Your task to perform on an android device: change text size in settings app Image 0: 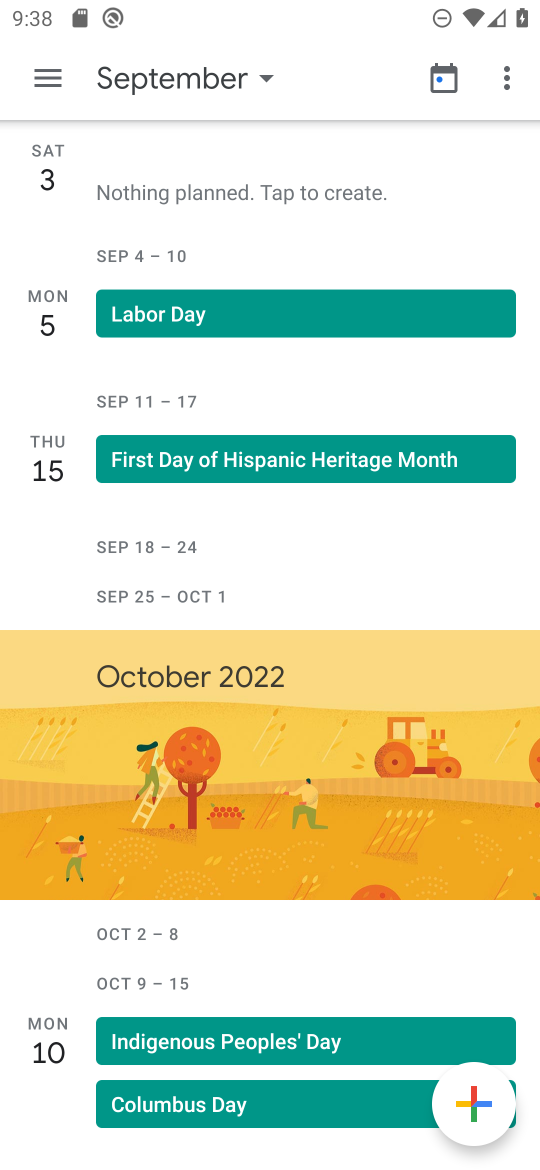
Step 0: press home button
Your task to perform on an android device: change text size in settings app Image 1: 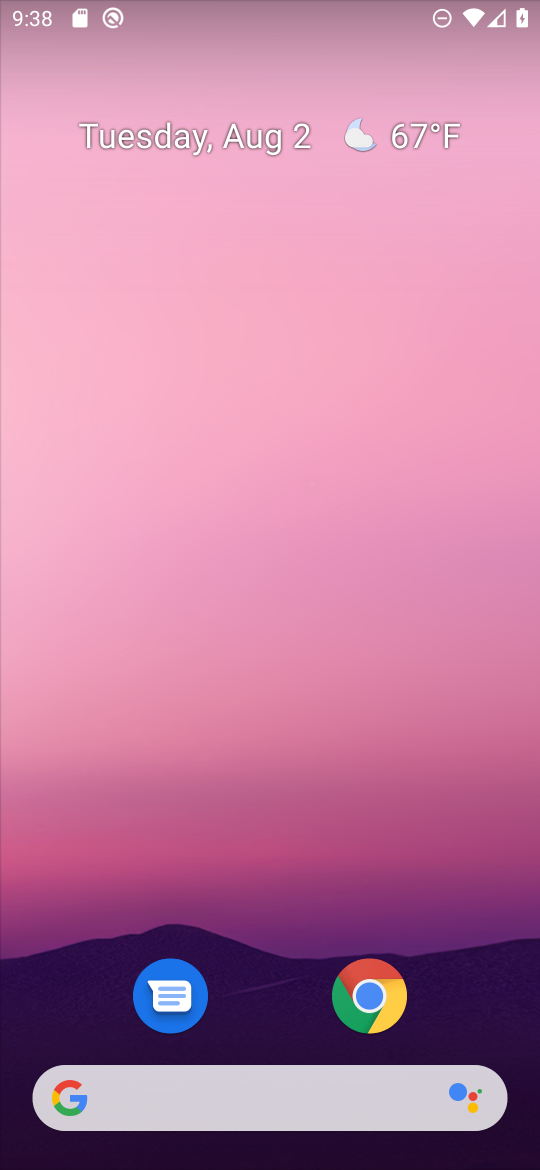
Step 1: drag from (257, 995) to (435, 19)
Your task to perform on an android device: change text size in settings app Image 2: 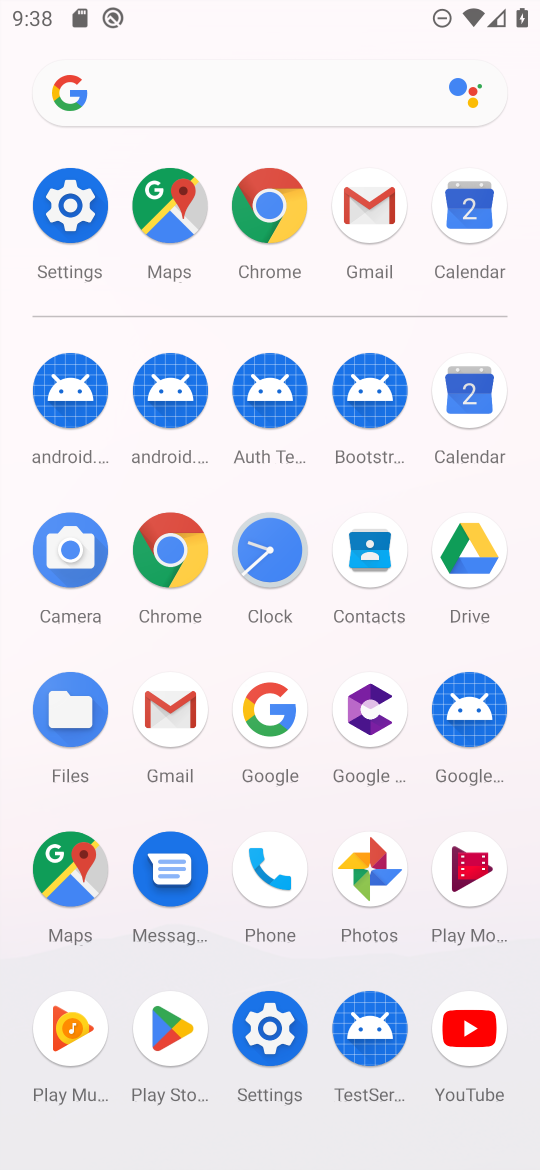
Step 2: click (283, 1034)
Your task to perform on an android device: change text size in settings app Image 3: 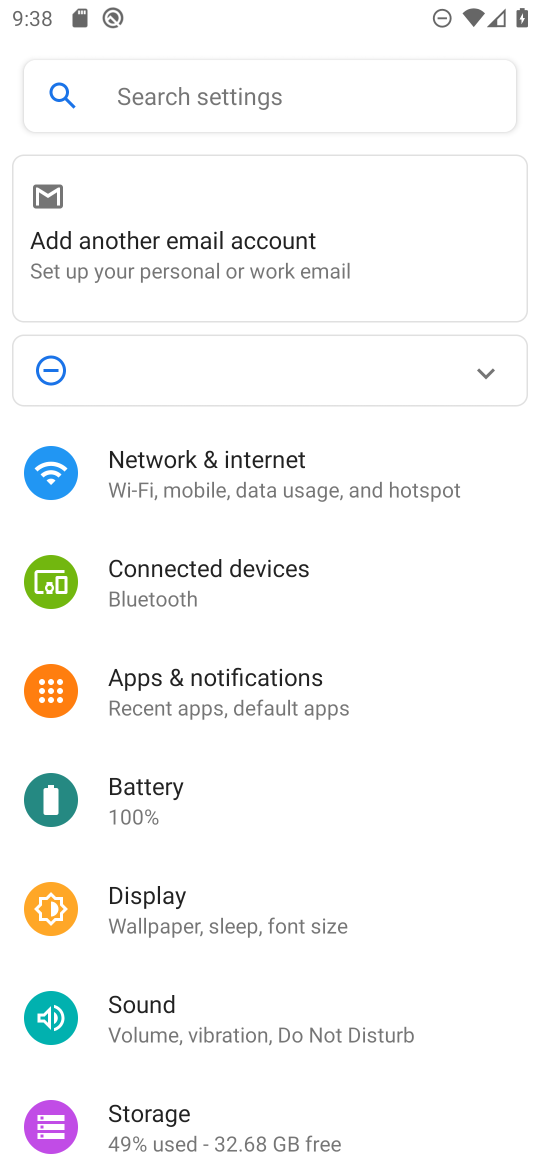
Step 3: drag from (266, 909) to (367, 331)
Your task to perform on an android device: change text size in settings app Image 4: 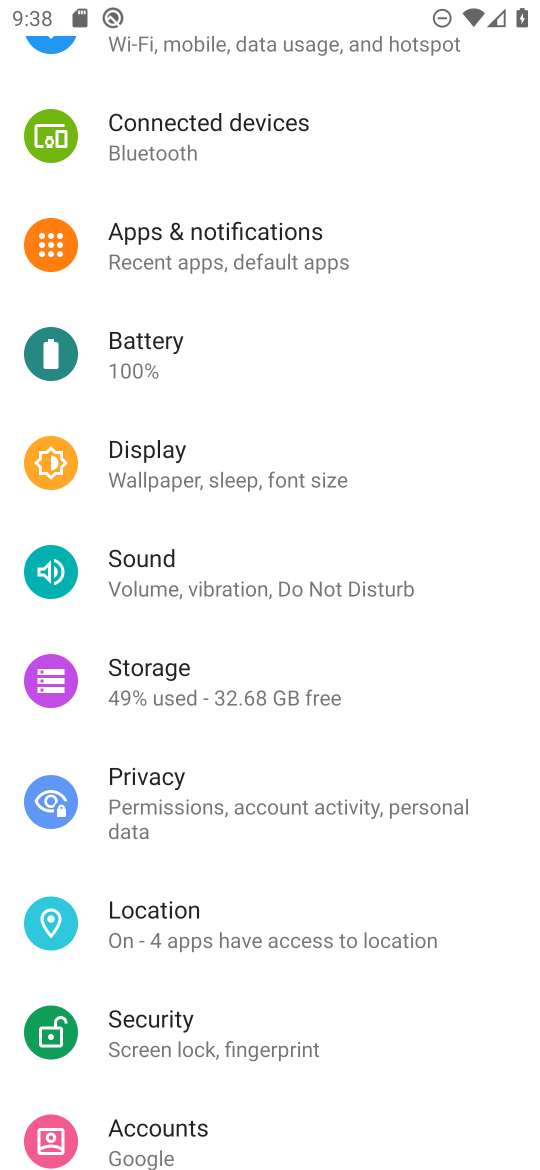
Step 4: click (175, 474)
Your task to perform on an android device: change text size in settings app Image 5: 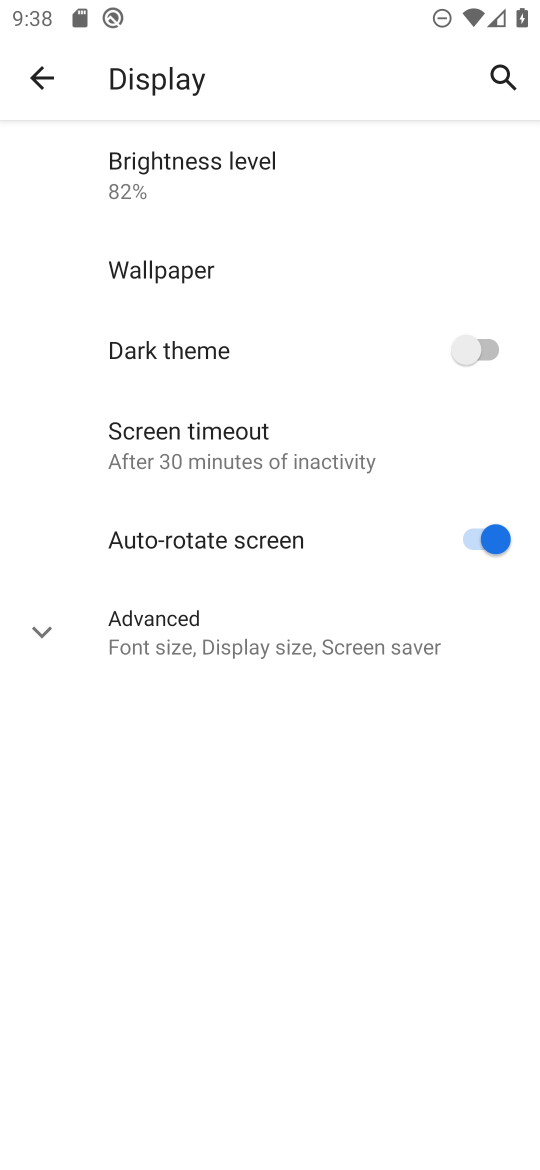
Step 5: click (207, 620)
Your task to perform on an android device: change text size in settings app Image 6: 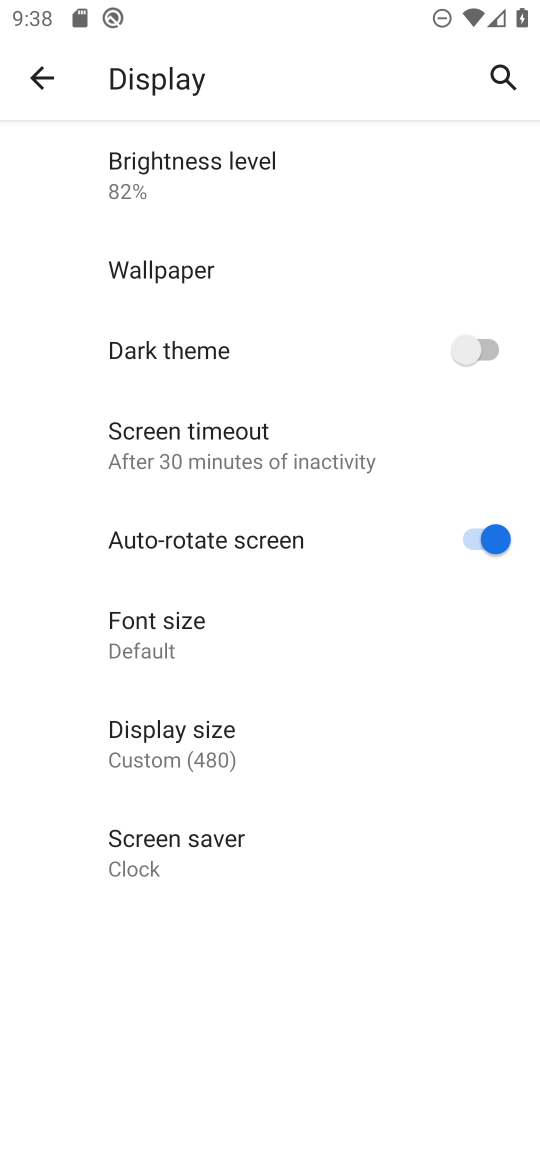
Step 6: click (183, 613)
Your task to perform on an android device: change text size in settings app Image 7: 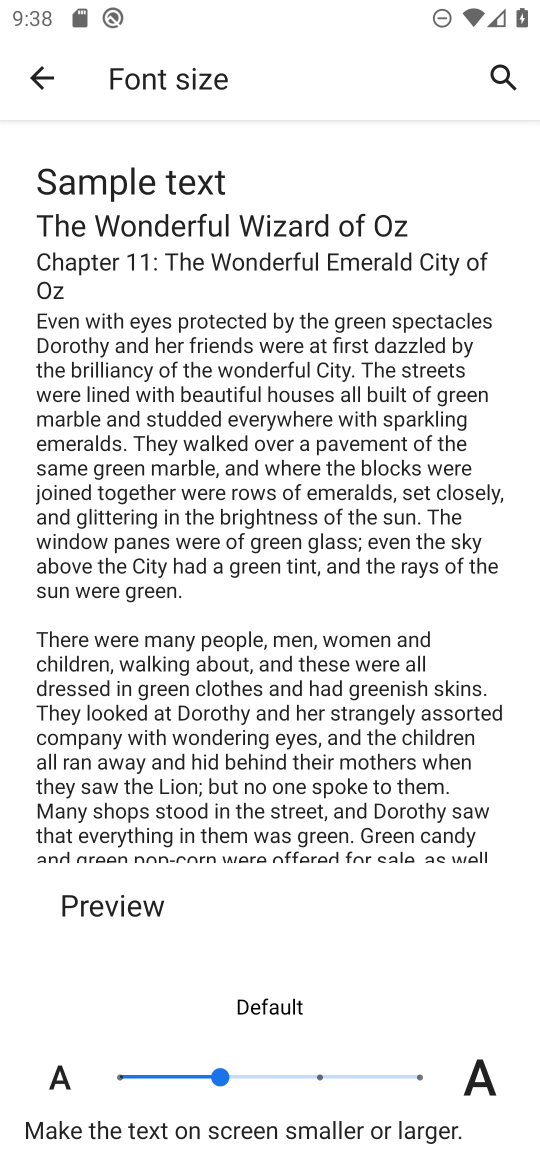
Step 7: click (127, 1066)
Your task to perform on an android device: change text size in settings app Image 8: 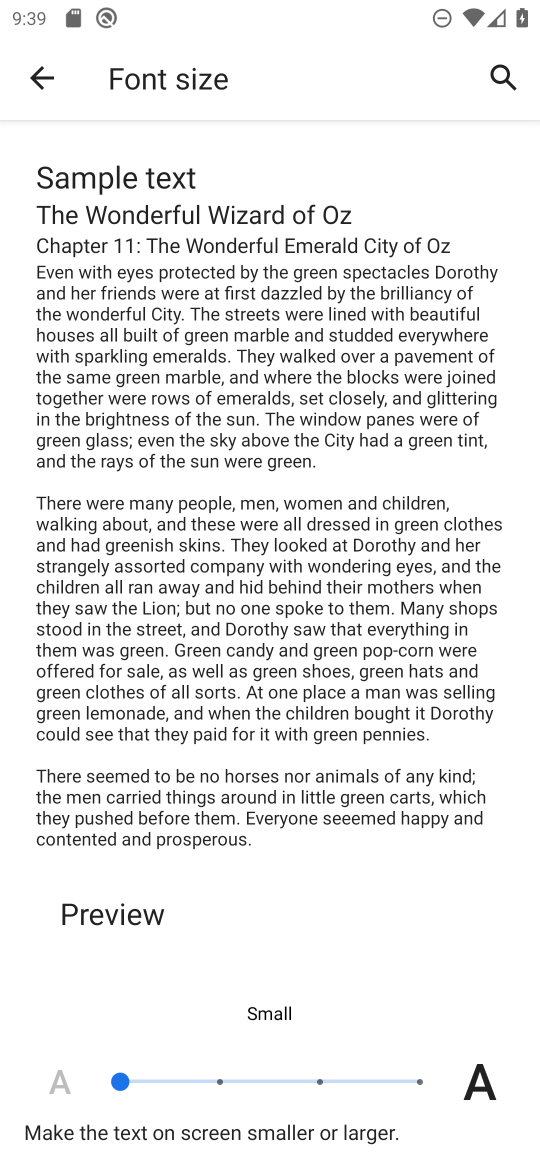
Step 8: task complete